Your task to perform on an android device: Go to wifi settings Image 0: 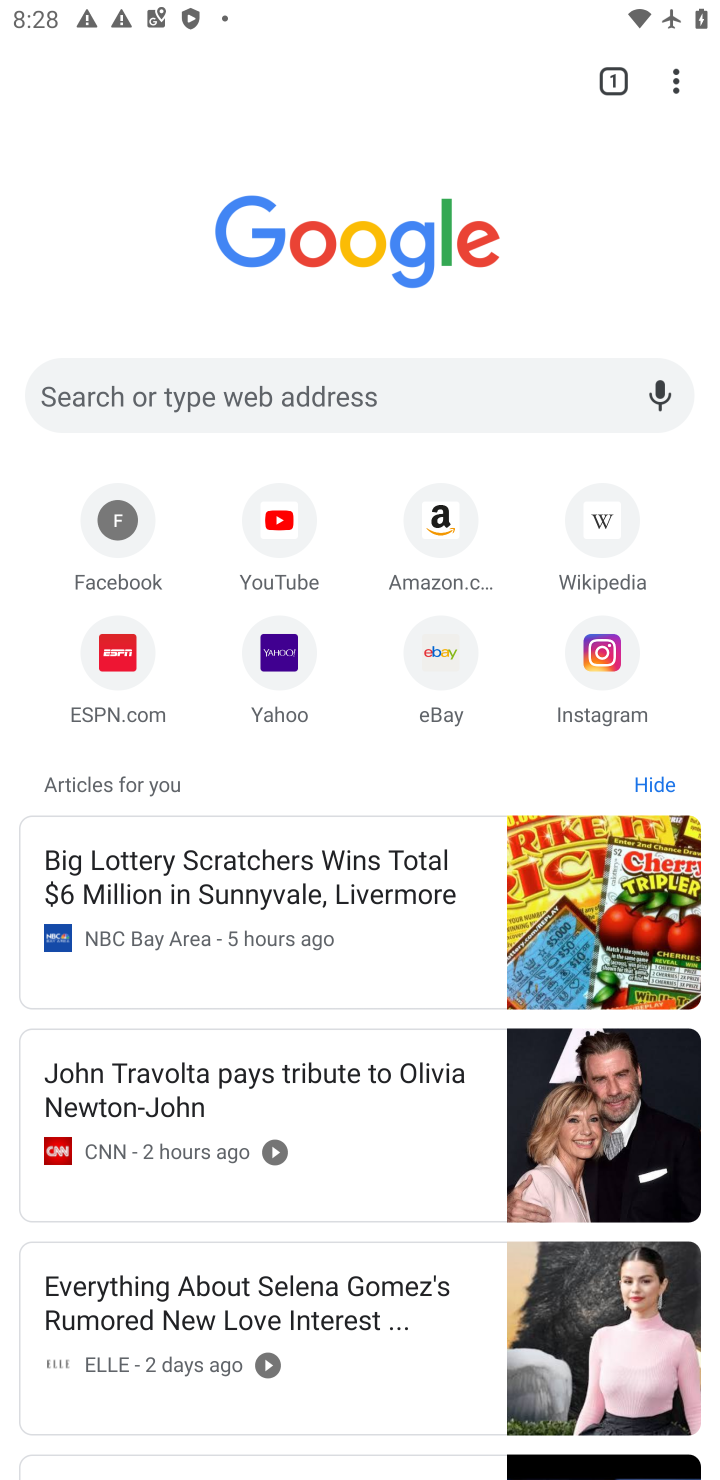
Step 0: press home button
Your task to perform on an android device: Go to wifi settings Image 1: 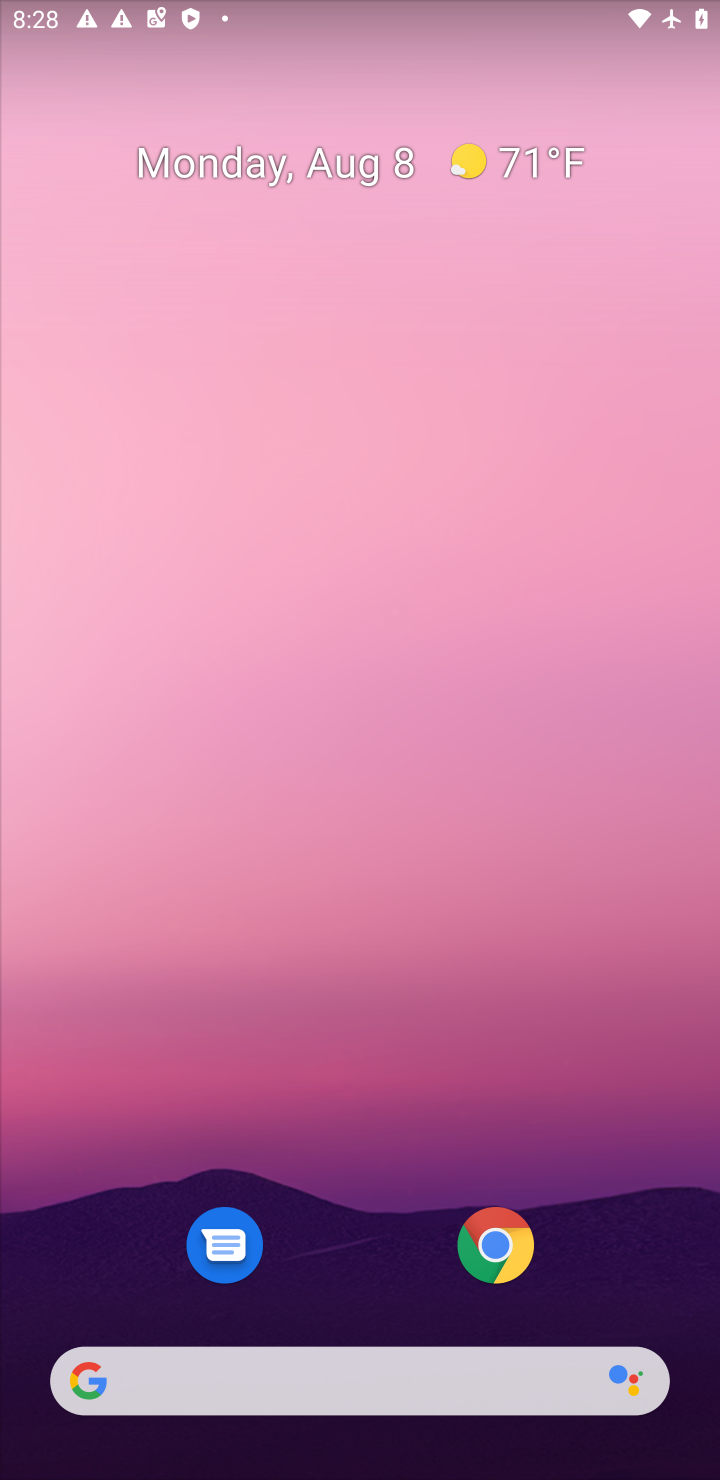
Step 1: drag from (339, 1325) to (394, 48)
Your task to perform on an android device: Go to wifi settings Image 2: 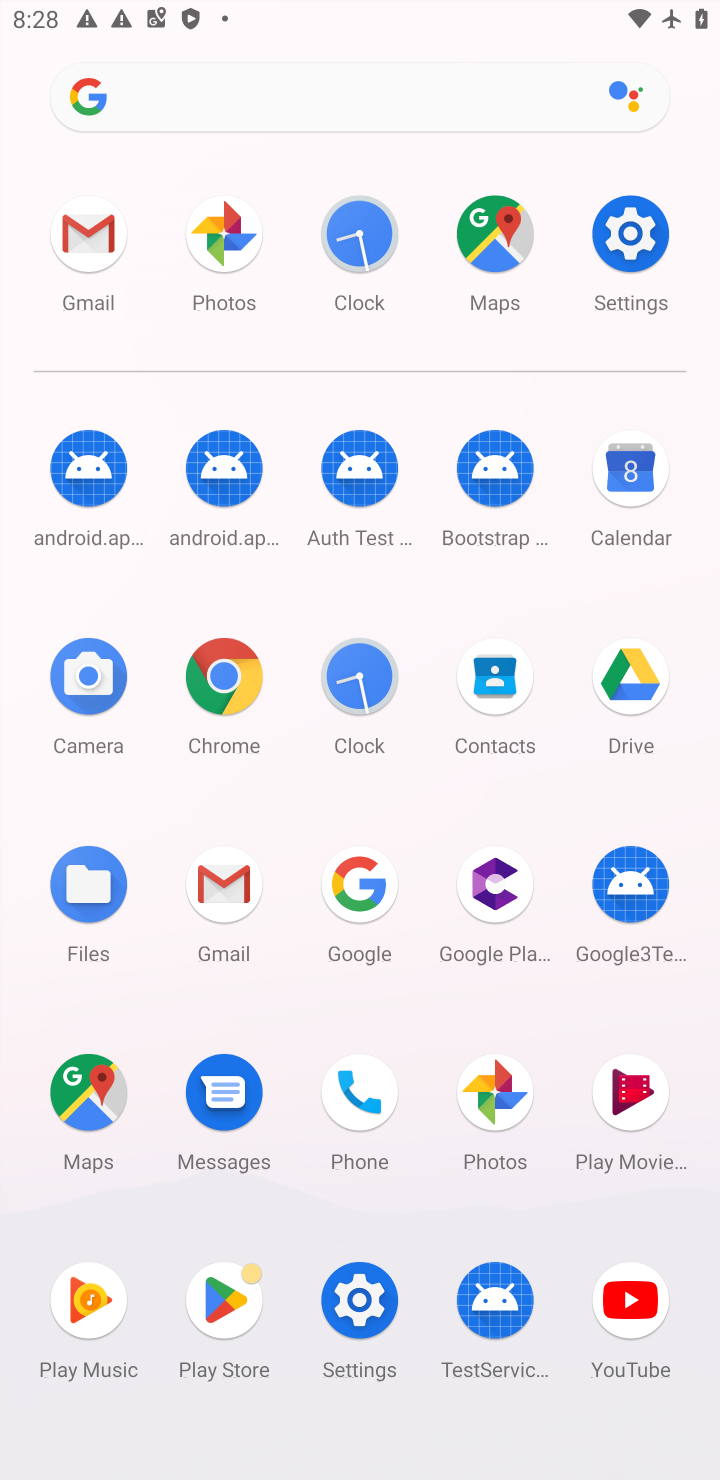
Step 2: click (369, 1318)
Your task to perform on an android device: Go to wifi settings Image 3: 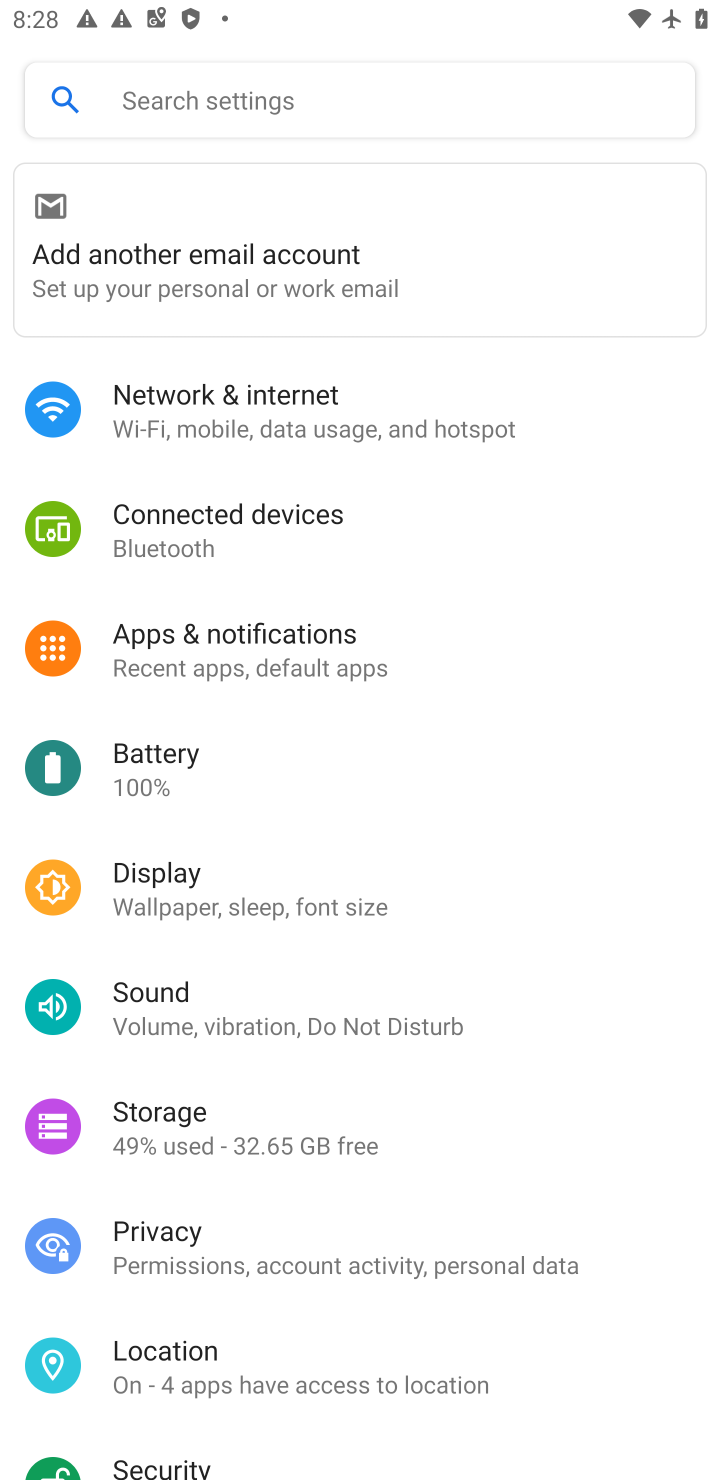
Step 3: click (256, 433)
Your task to perform on an android device: Go to wifi settings Image 4: 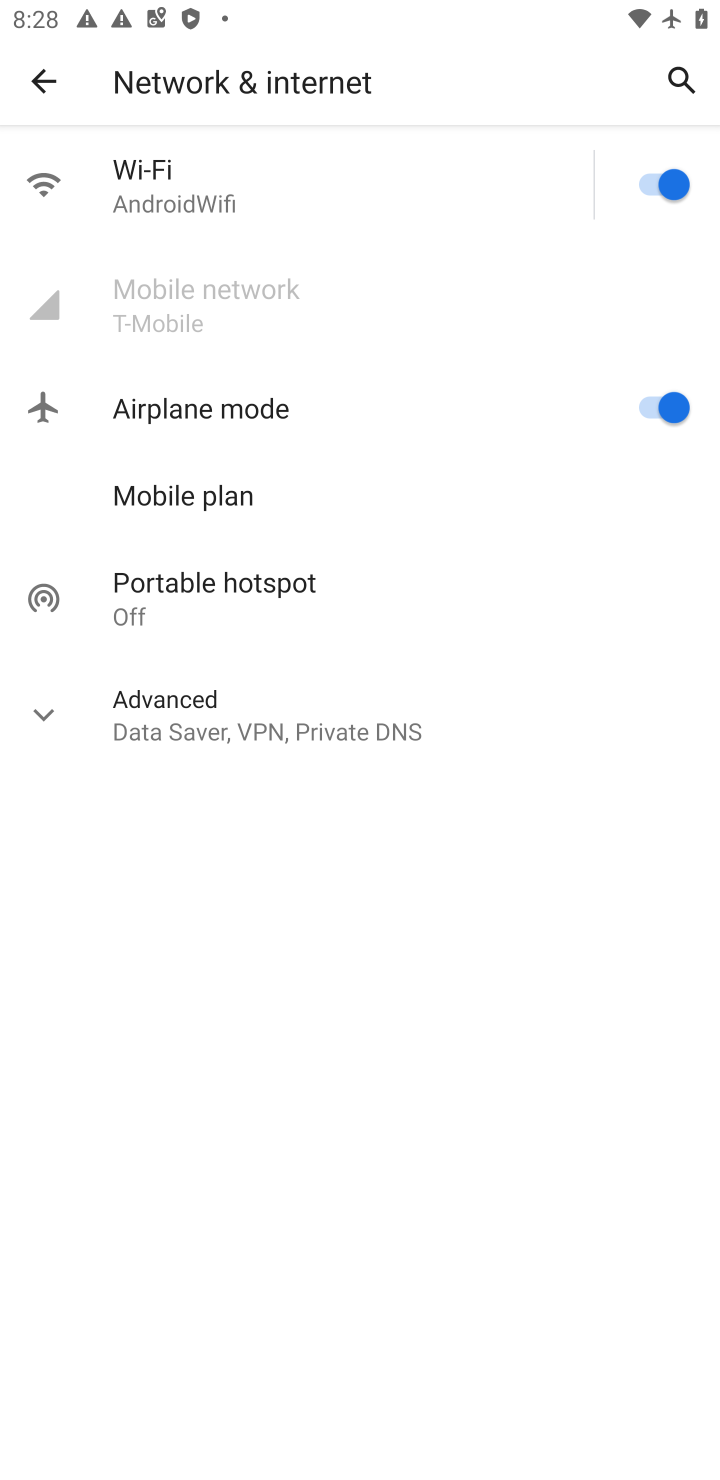
Step 4: click (188, 184)
Your task to perform on an android device: Go to wifi settings Image 5: 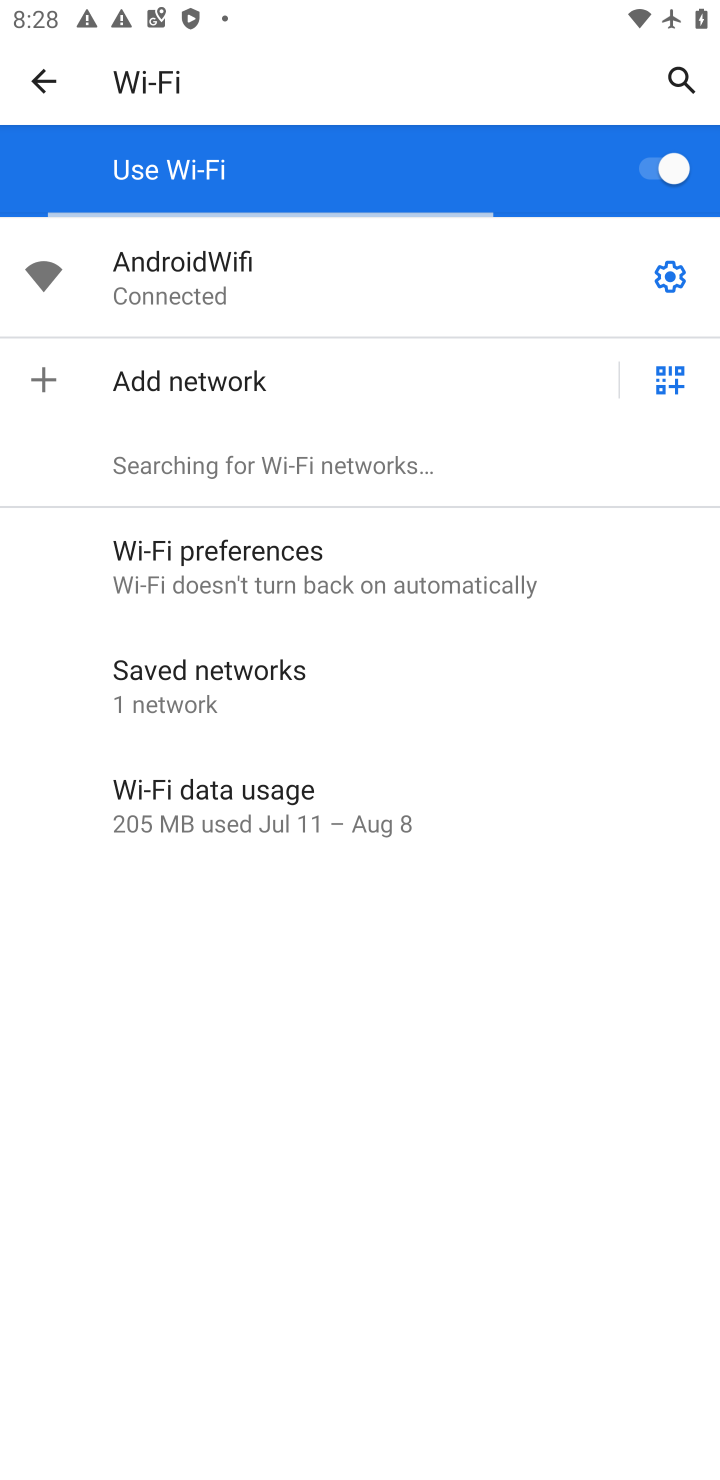
Step 5: task complete